Your task to perform on an android device: Open Google Chrome Image 0: 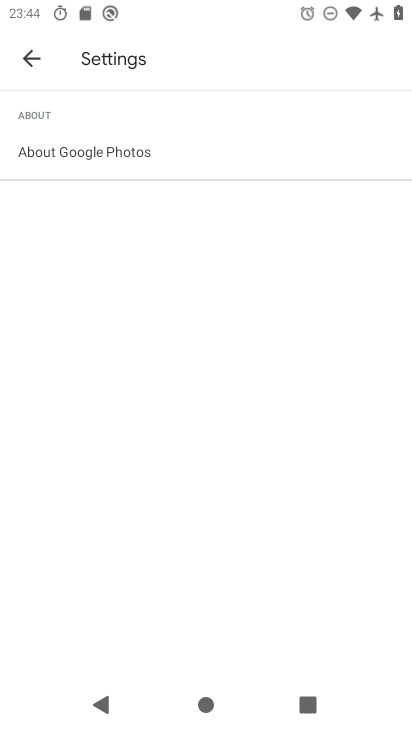
Step 0: press home button
Your task to perform on an android device: Open Google Chrome Image 1: 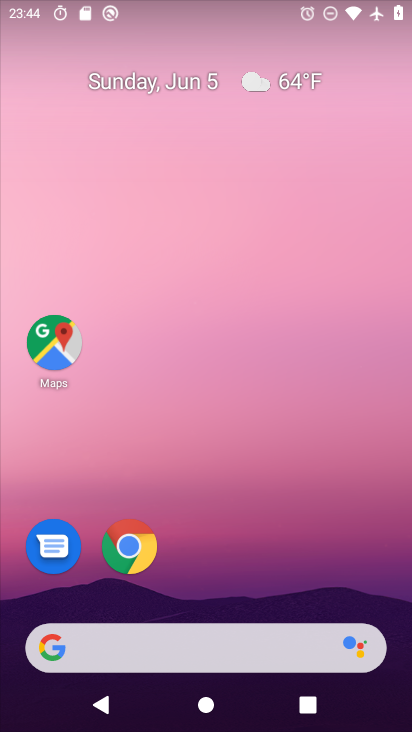
Step 1: drag from (181, 599) to (184, 217)
Your task to perform on an android device: Open Google Chrome Image 2: 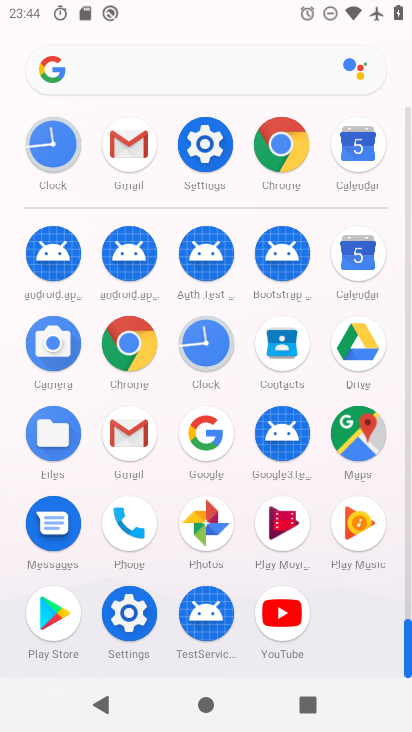
Step 2: click (108, 342)
Your task to perform on an android device: Open Google Chrome Image 3: 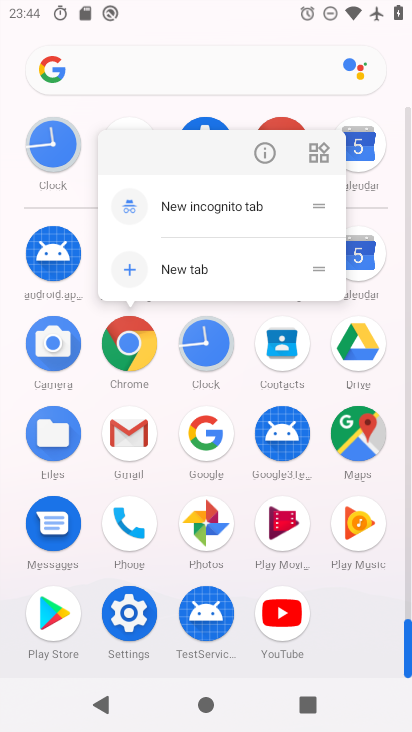
Step 3: click (263, 150)
Your task to perform on an android device: Open Google Chrome Image 4: 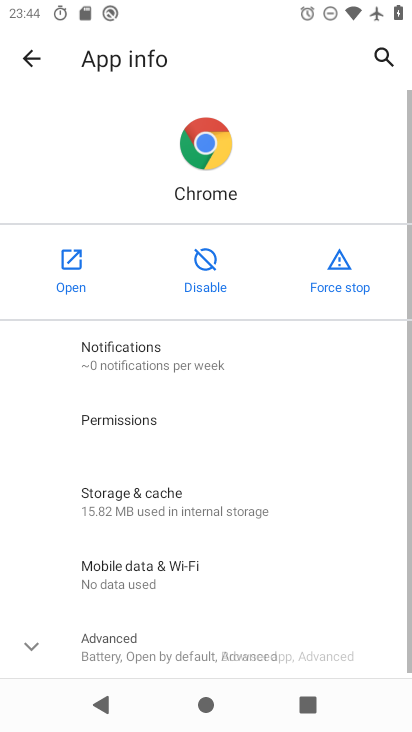
Step 4: drag from (206, 493) to (225, 71)
Your task to perform on an android device: Open Google Chrome Image 5: 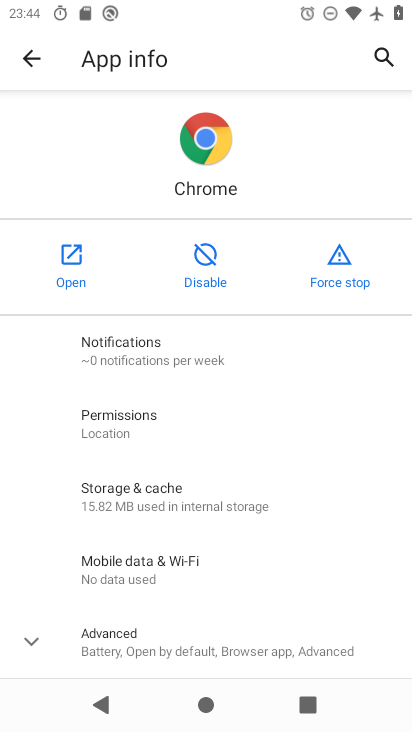
Step 5: click (55, 249)
Your task to perform on an android device: Open Google Chrome Image 6: 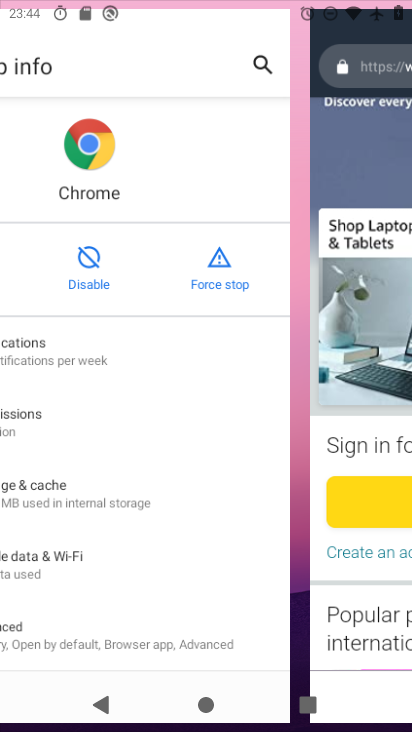
Step 6: task complete